Your task to perform on an android device: set the stopwatch Image 0: 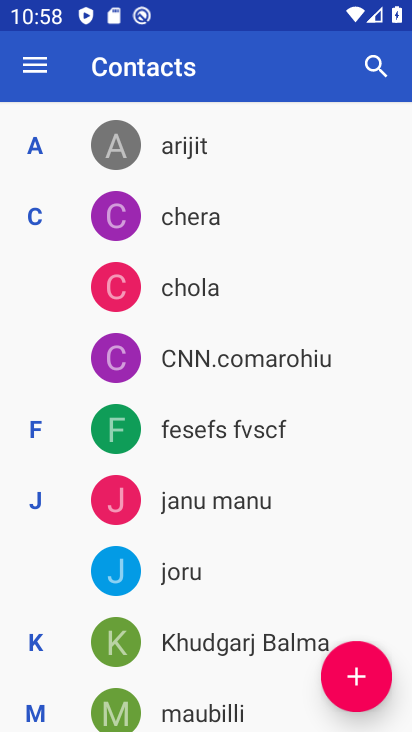
Step 0: press home button
Your task to perform on an android device: set the stopwatch Image 1: 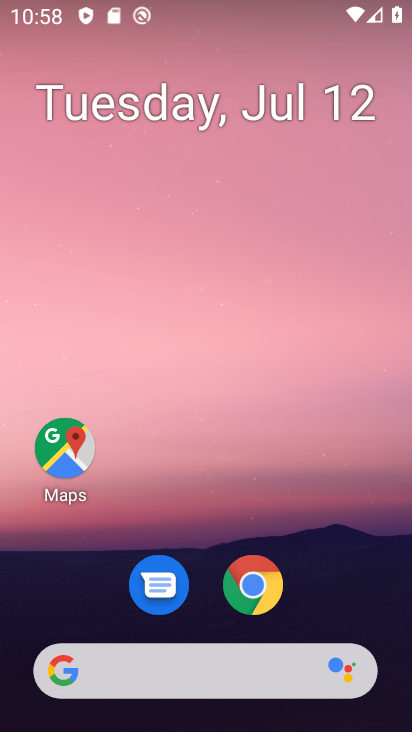
Step 1: drag from (343, 597) to (340, 65)
Your task to perform on an android device: set the stopwatch Image 2: 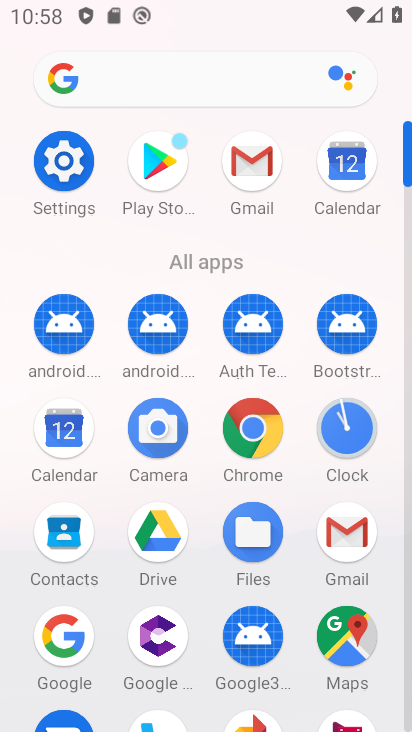
Step 2: click (351, 430)
Your task to perform on an android device: set the stopwatch Image 3: 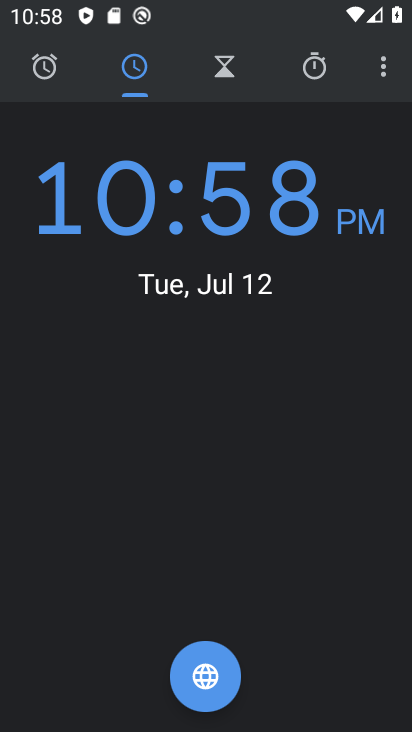
Step 3: click (221, 73)
Your task to perform on an android device: set the stopwatch Image 4: 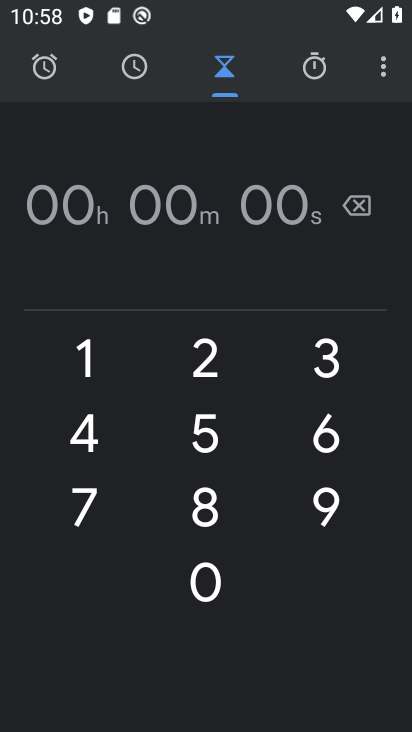
Step 4: task complete